Your task to perform on an android device: Open the calendar and show me this week's events Image 0: 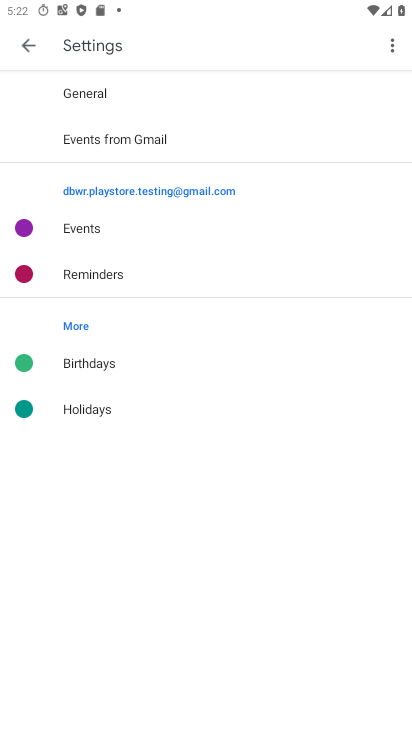
Step 0: press home button
Your task to perform on an android device: Open the calendar and show me this week's events Image 1: 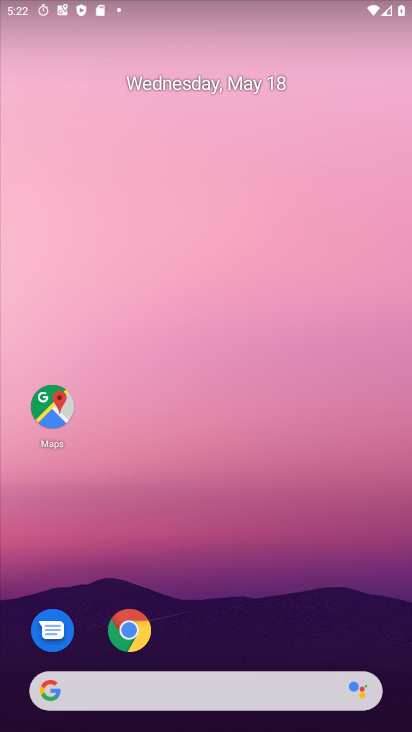
Step 1: drag from (153, 672) to (156, 267)
Your task to perform on an android device: Open the calendar and show me this week's events Image 2: 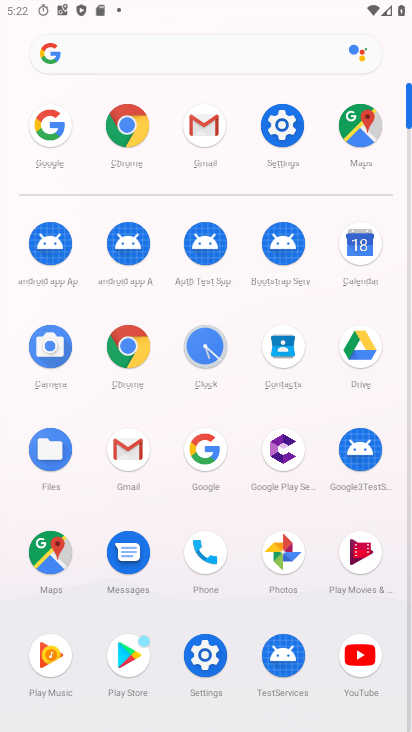
Step 2: click (354, 243)
Your task to perform on an android device: Open the calendar and show me this week's events Image 3: 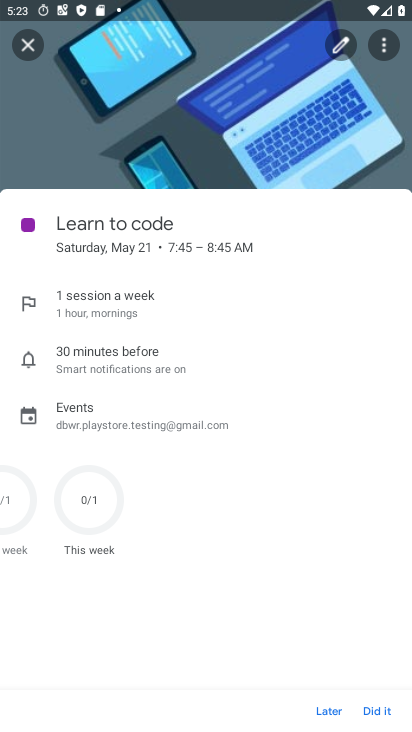
Step 3: click (25, 45)
Your task to perform on an android device: Open the calendar and show me this week's events Image 4: 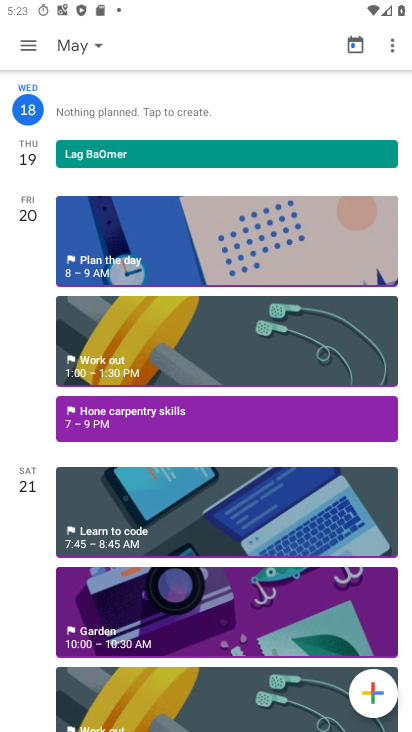
Step 4: task complete